Your task to perform on an android device: Search for Italian restaurants on Maps Image 0: 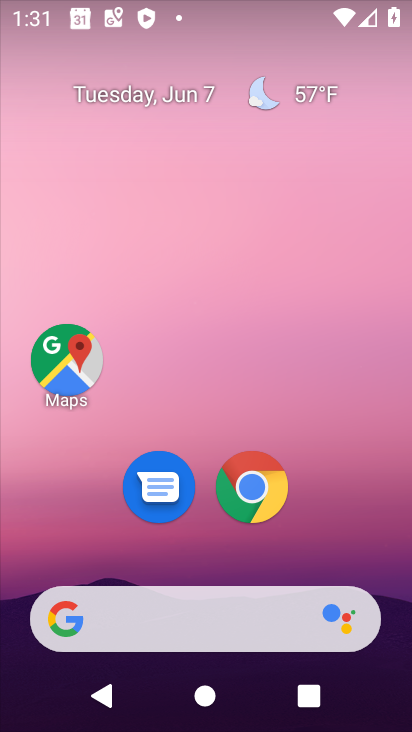
Step 0: click (67, 364)
Your task to perform on an android device: Search for Italian restaurants on Maps Image 1: 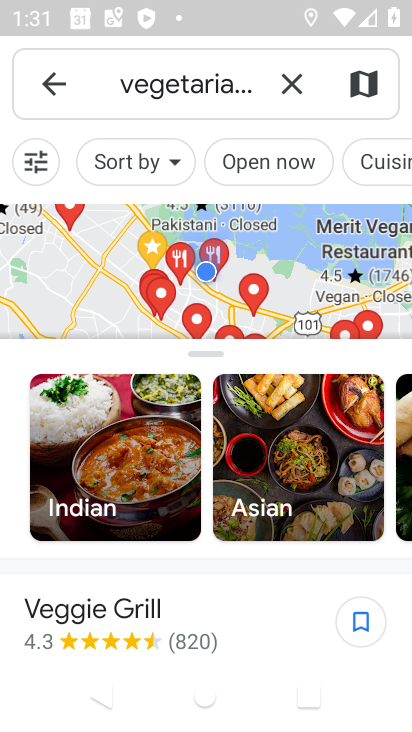
Step 1: click (289, 85)
Your task to perform on an android device: Search for Italian restaurants on Maps Image 2: 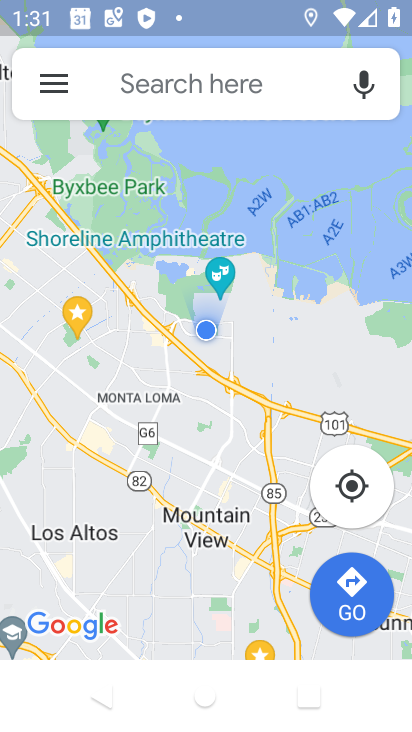
Step 2: click (266, 85)
Your task to perform on an android device: Search for Italian restaurants on Maps Image 3: 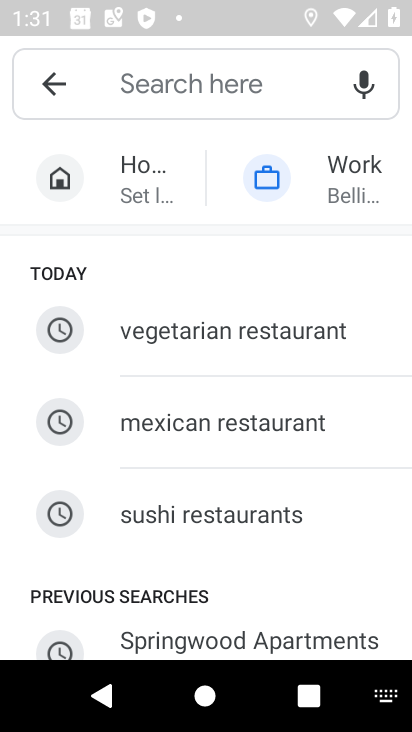
Step 3: type "Italian restaurants"
Your task to perform on an android device: Search for Italian restaurants on Maps Image 4: 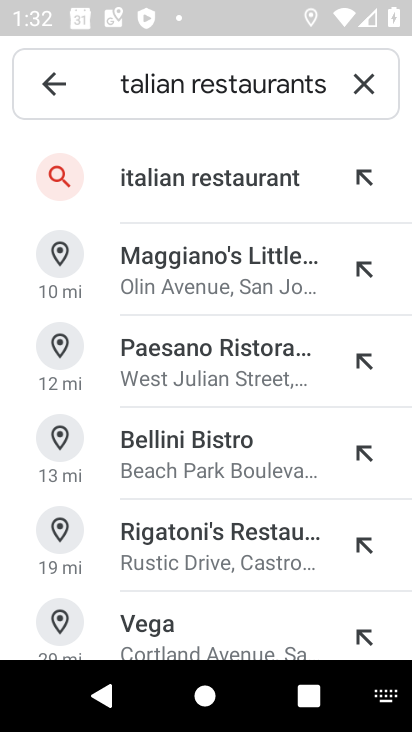
Step 4: click (253, 179)
Your task to perform on an android device: Search for Italian restaurants on Maps Image 5: 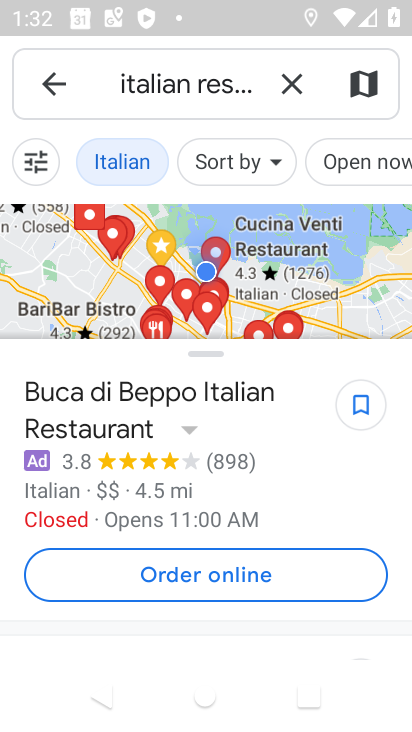
Step 5: task complete